Your task to perform on an android device: remove spam from my inbox in the gmail app Image 0: 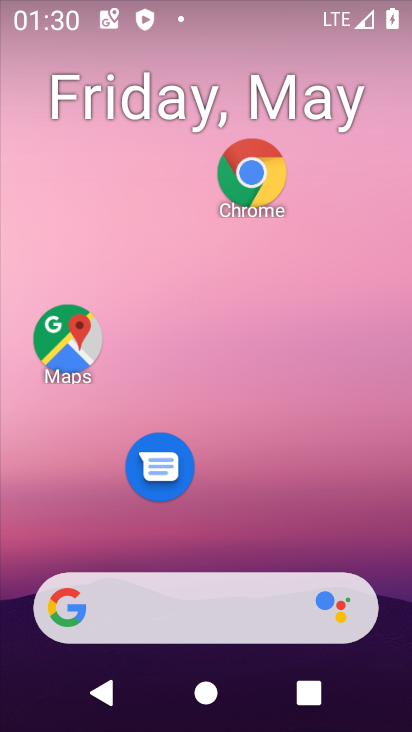
Step 0: drag from (228, 627) to (250, 151)
Your task to perform on an android device: remove spam from my inbox in the gmail app Image 1: 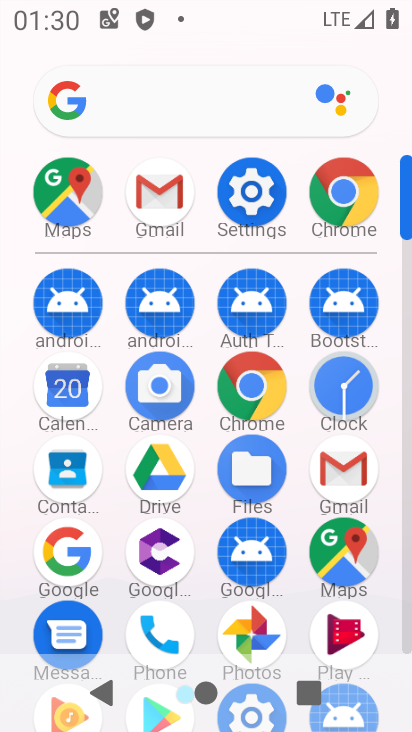
Step 1: click (353, 457)
Your task to perform on an android device: remove spam from my inbox in the gmail app Image 2: 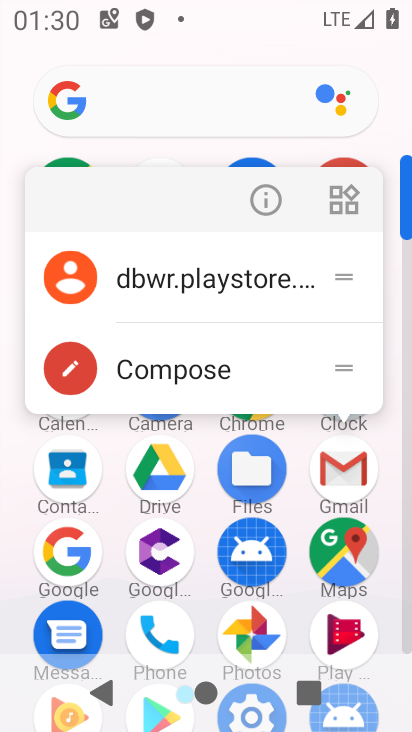
Step 2: click (329, 473)
Your task to perform on an android device: remove spam from my inbox in the gmail app Image 3: 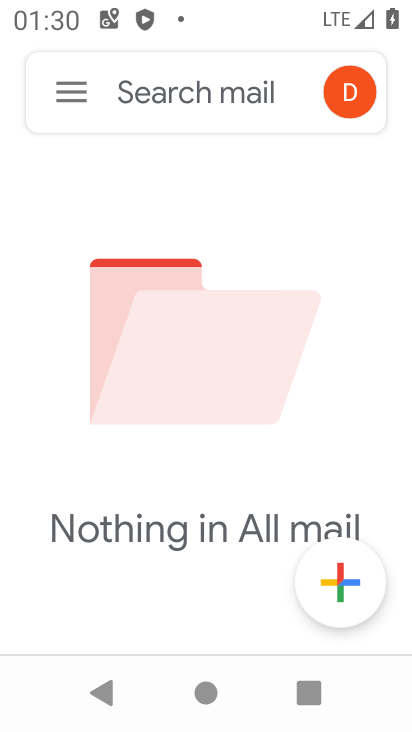
Step 3: click (72, 101)
Your task to perform on an android device: remove spam from my inbox in the gmail app Image 4: 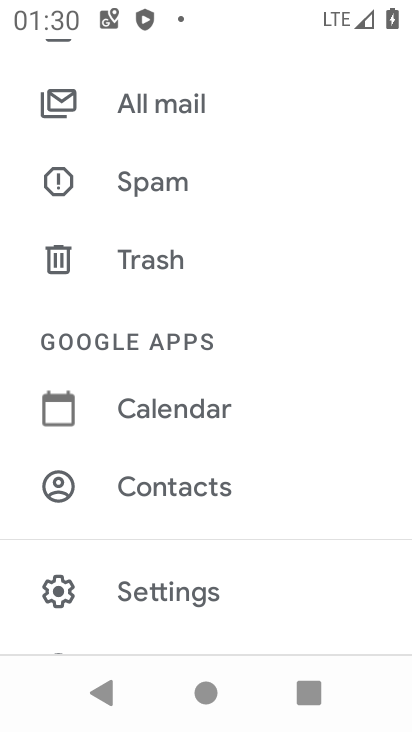
Step 4: click (126, 175)
Your task to perform on an android device: remove spam from my inbox in the gmail app Image 5: 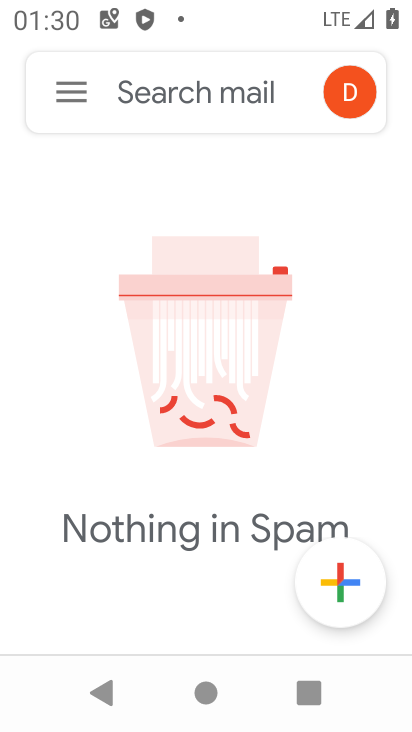
Step 5: task complete